Your task to perform on an android device: open the mobile data screen to see how much data has been used Image 0: 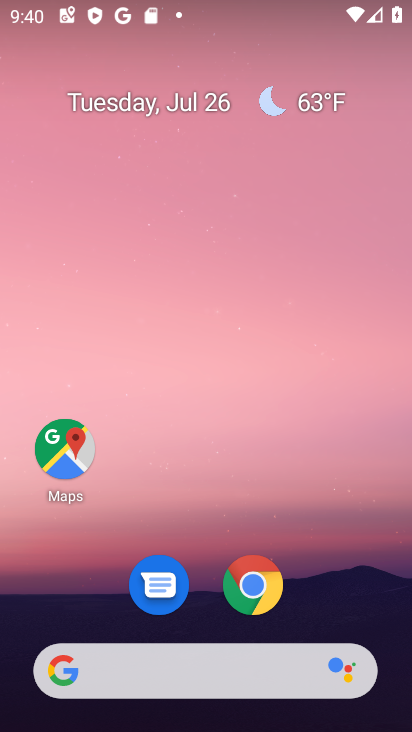
Step 0: drag from (323, 497) to (322, 30)
Your task to perform on an android device: open the mobile data screen to see how much data has been used Image 1: 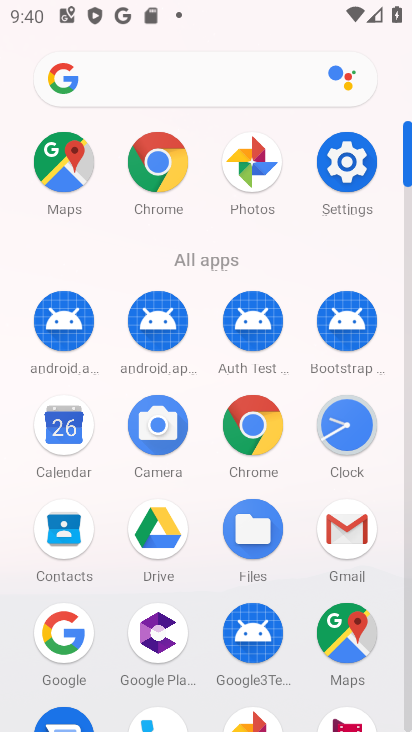
Step 1: click (346, 165)
Your task to perform on an android device: open the mobile data screen to see how much data has been used Image 2: 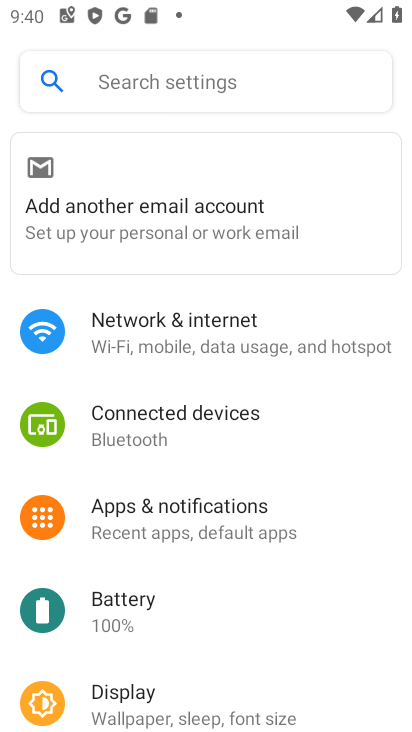
Step 2: click (212, 325)
Your task to perform on an android device: open the mobile data screen to see how much data has been used Image 3: 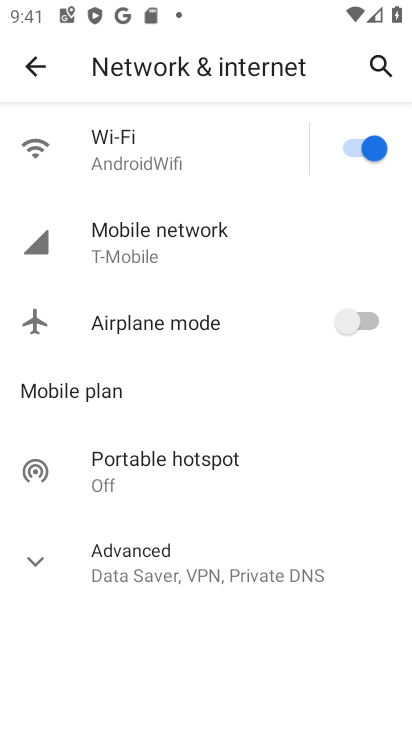
Step 3: click (201, 236)
Your task to perform on an android device: open the mobile data screen to see how much data has been used Image 4: 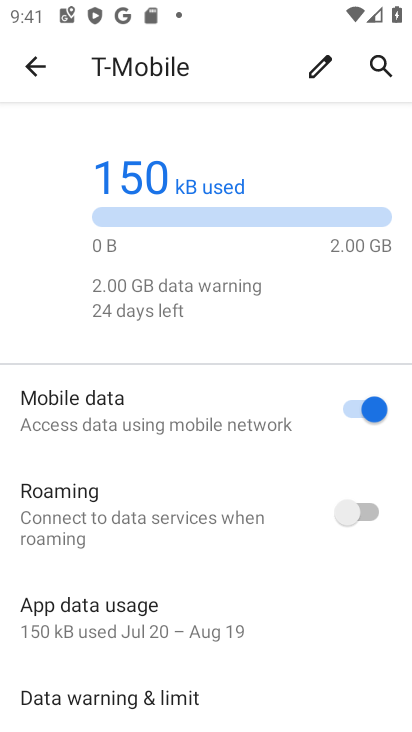
Step 4: task complete